Your task to perform on an android device: change the upload size in google photos Image 0: 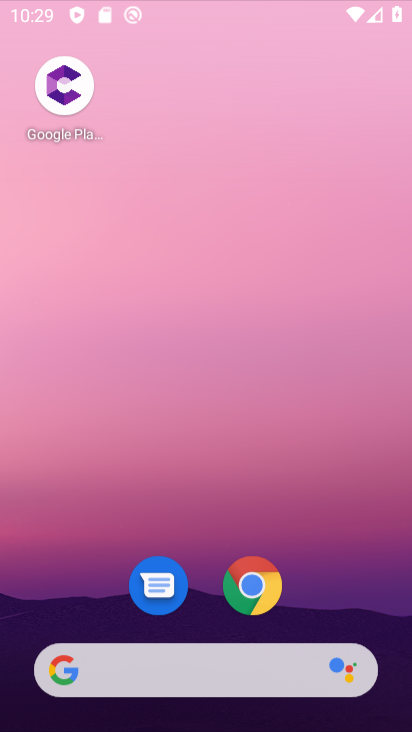
Step 0: drag from (313, 567) to (181, 0)
Your task to perform on an android device: change the upload size in google photos Image 1: 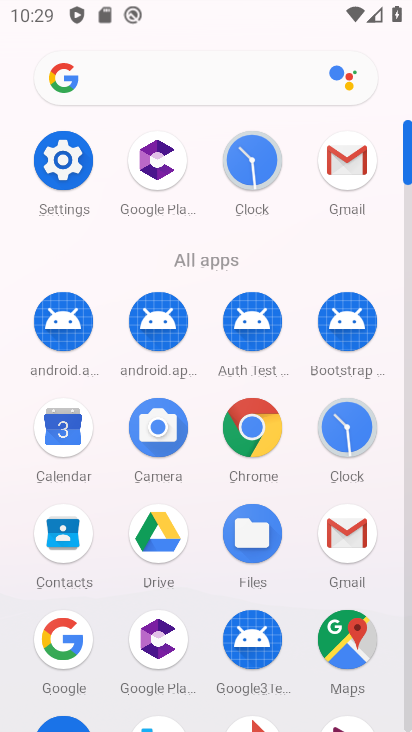
Step 1: drag from (263, 619) to (296, 159)
Your task to perform on an android device: change the upload size in google photos Image 2: 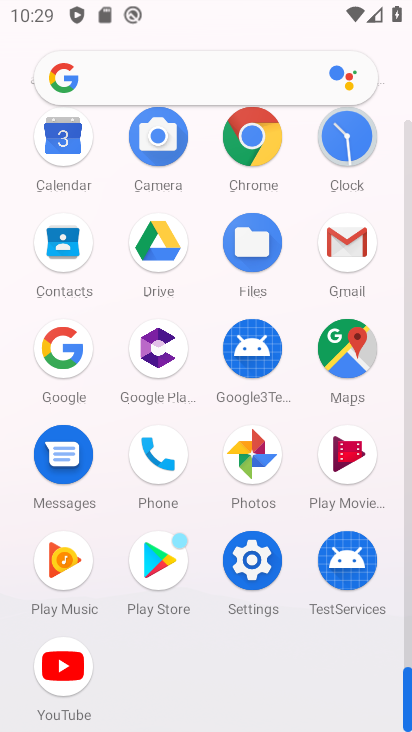
Step 2: click (258, 444)
Your task to perform on an android device: change the upload size in google photos Image 3: 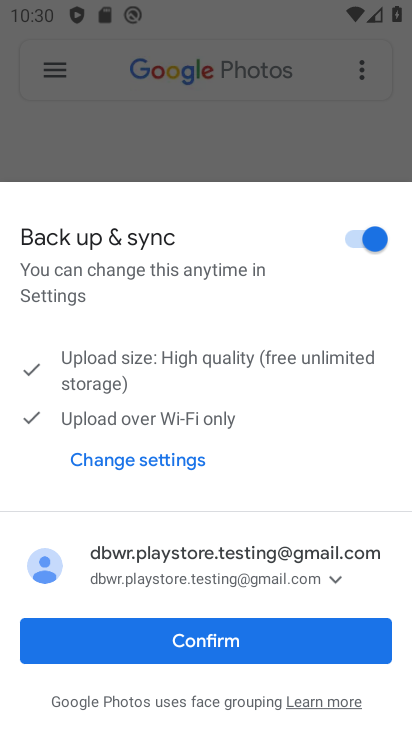
Step 3: click (186, 134)
Your task to perform on an android device: change the upload size in google photos Image 4: 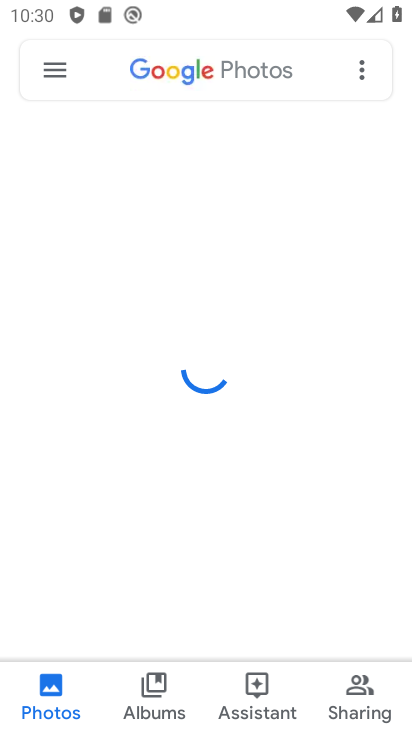
Step 4: click (218, 644)
Your task to perform on an android device: change the upload size in google photos Image 5: 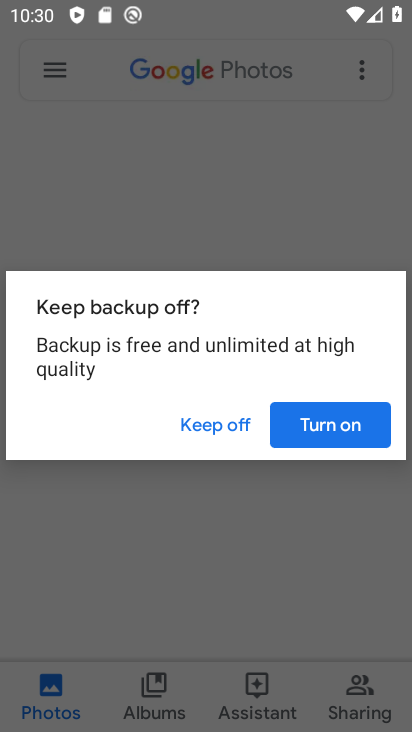
Step 5: click (358, 61)
Your task to perform on an android device: change the upload size in google photos Image 6: 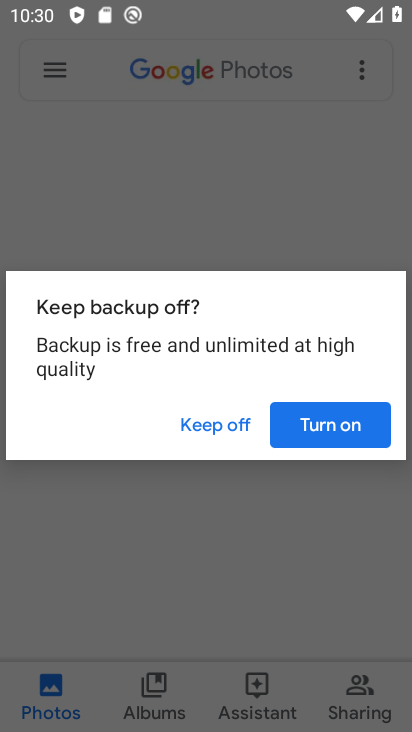
Step 6: click (229, 418)
Your task to perform on an android device: change the upload size in google photos Image 7: 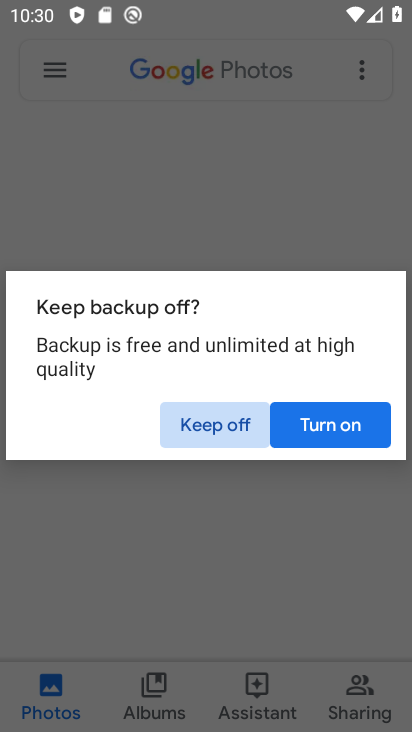
Step 7: click (365, 57)
Your task to perform on an android device: change the upload size in google photos Image 8: 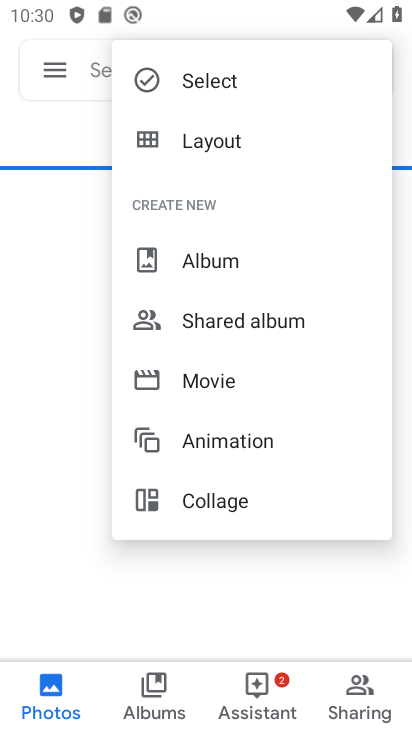
Step 8: click (76, 351)
Your task to perform on an android device: change the upload size in google photos Image 9: 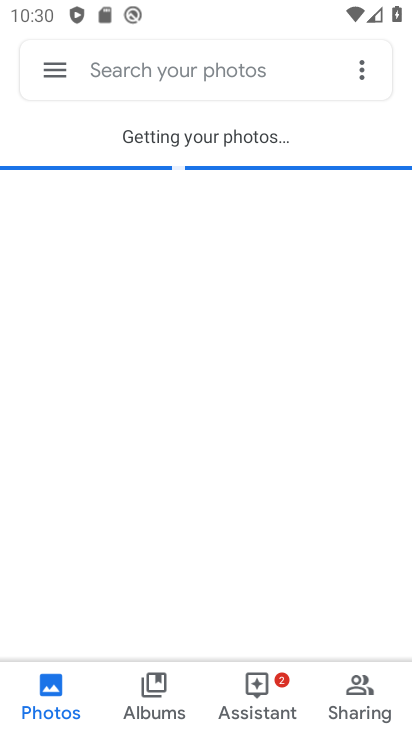
Step 9: click (355, 68)
Your task to perform on an android device: change the upload size in google photos Image 10: 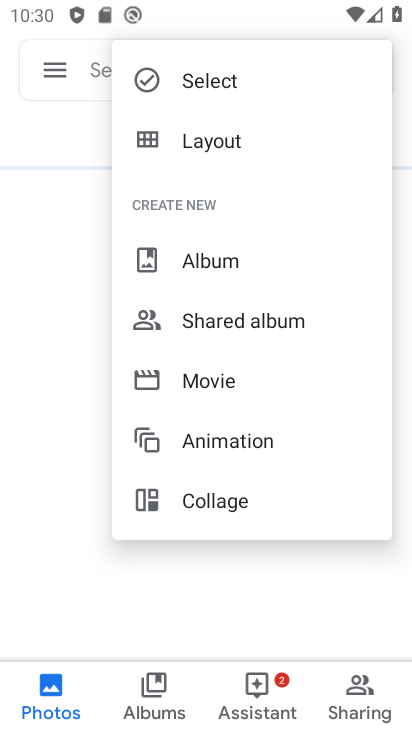
Step 10: click (34, 152)
Your task to perform on an android device: change the upload size in google photos Image 11: 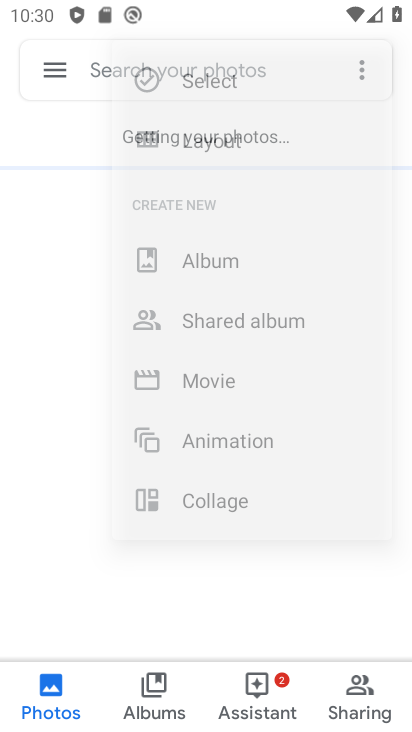
Step 11: click (48, 67)
Your task to perform on an android device: change the upload size in google photos Image 12: 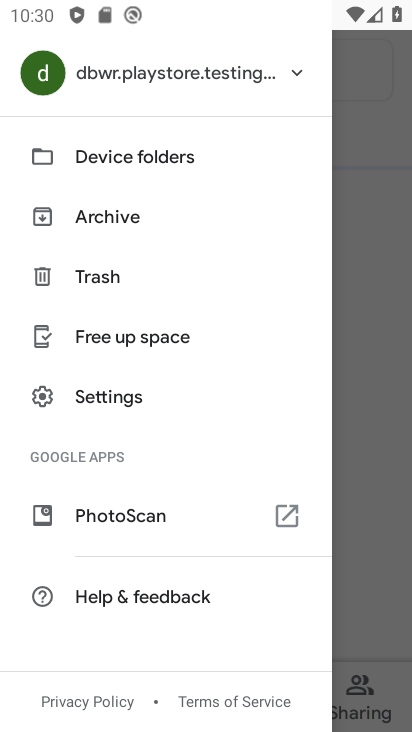
Step 12: click (154, 382)
Your task to perform on an android device: change the upload size in google photos Image 13: 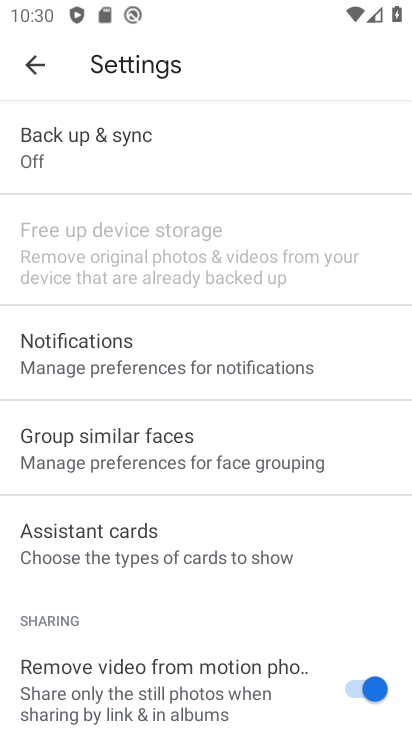
Step 13: click (115, 145)
Your task to perform on an android device: change the upload size in google photos Image 14: 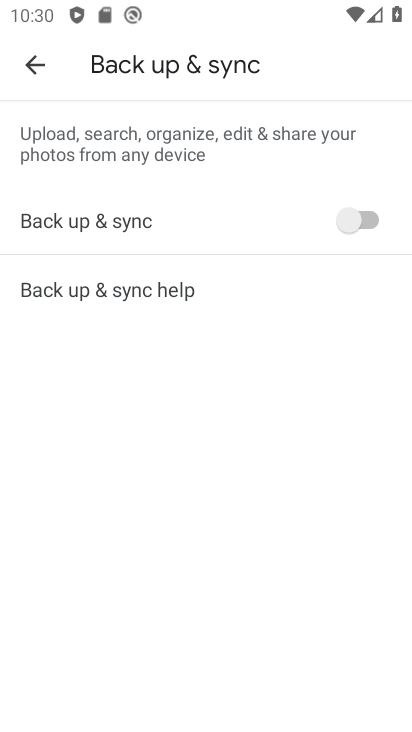
Step 14: click (367, 211)
Your task to perform on an android device: change the upload size in google photos Image 15: 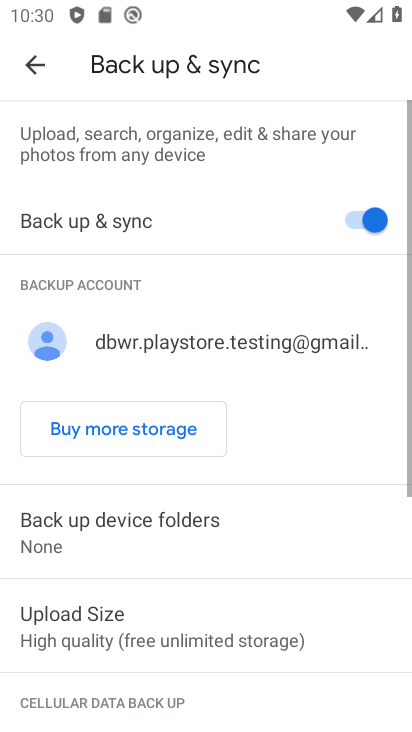
Step 15: drag from (208, 551) to (219, 220)
Your task to perform on an android device: change the upload size in google photos Image 16: 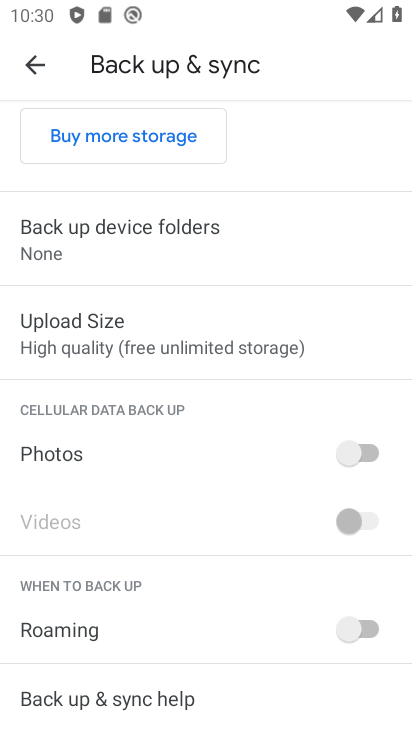
Step 16: click (157, 299)
Your task to perform on an android device: change the upload size in google photos Image 17: 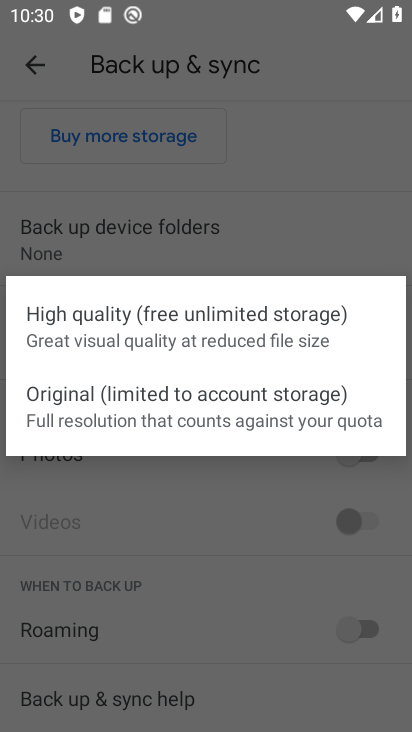
Step 17: click (146, 393)
Your task to perform on an android device: change the upload size in google photos Image 18: 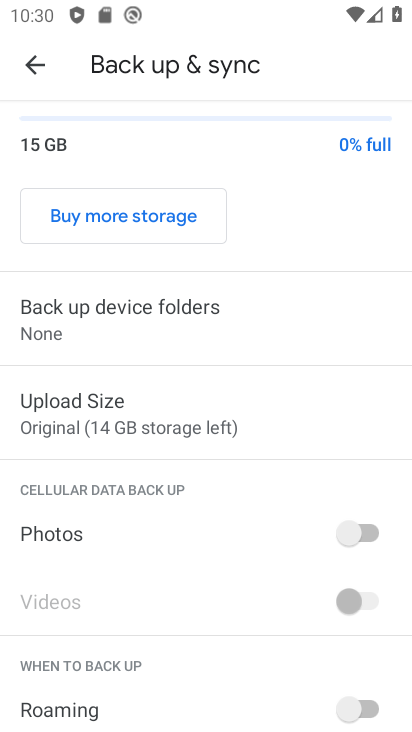
Step 18: task complete